Your task to perform on an android device: set the stopwatch Image 0: 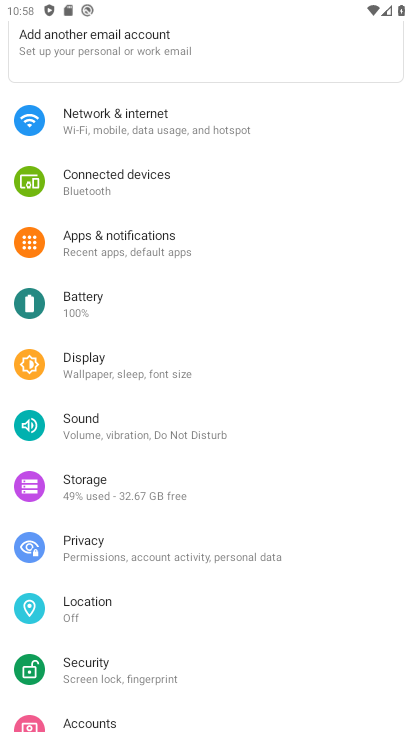
Step 0: press home button
Your task to perform on an android device: set the stopwatch Image 1: 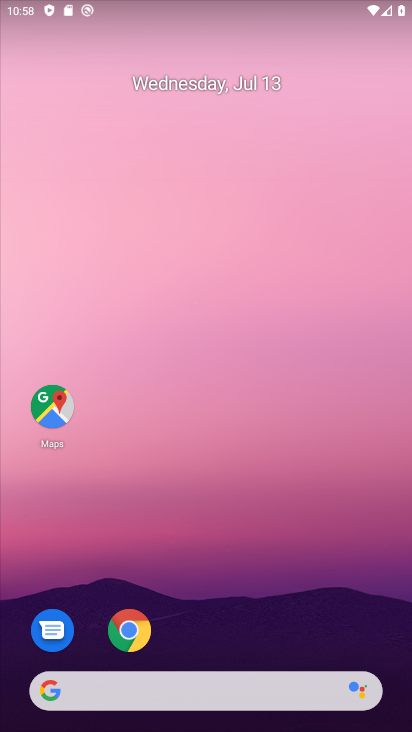
Step 1: drag from (292, 521) to (379, 88)
Your task to perform on an android device: set the stopwatch Image 2: 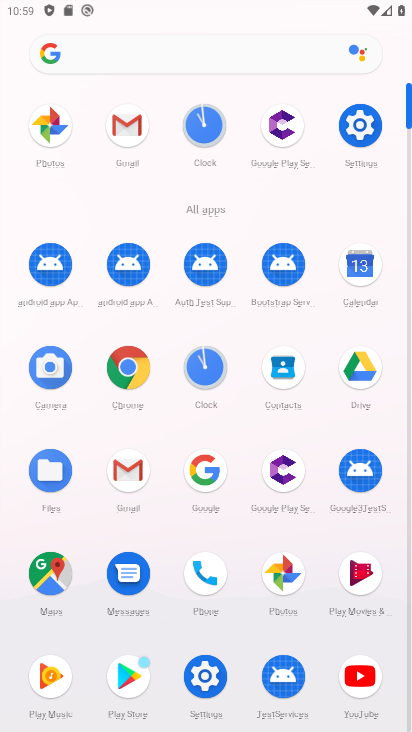
Step 2: click (202, 380)
Your task to perform on an android device: set the stopwatch Image 3: 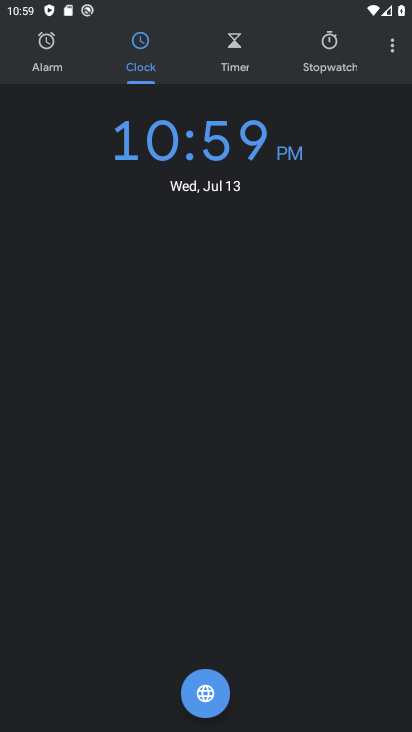
Step 3: click (338, 59)
Your task to perform on an android device: set the stopwatch Image 4: 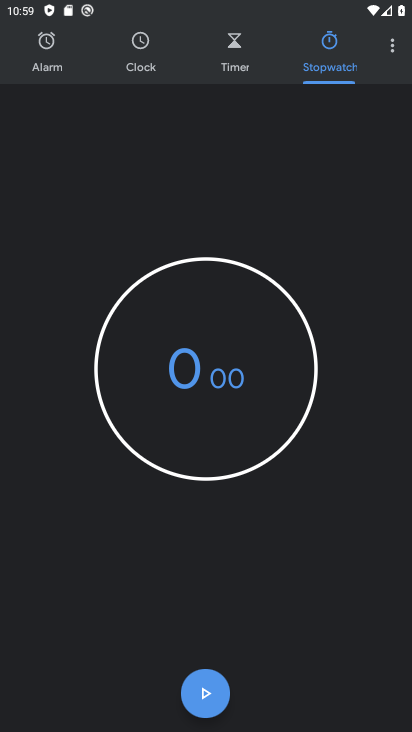
Step 4: click (214, 696)
Your task to perform on an android device: set the stopwatch Image 5: 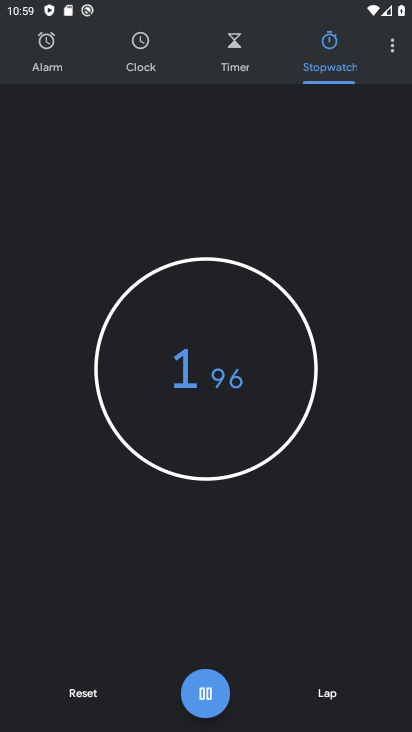
Step 5: task complete